Your task to perform on an android device: open a bookmark in the chrome app Image 0: 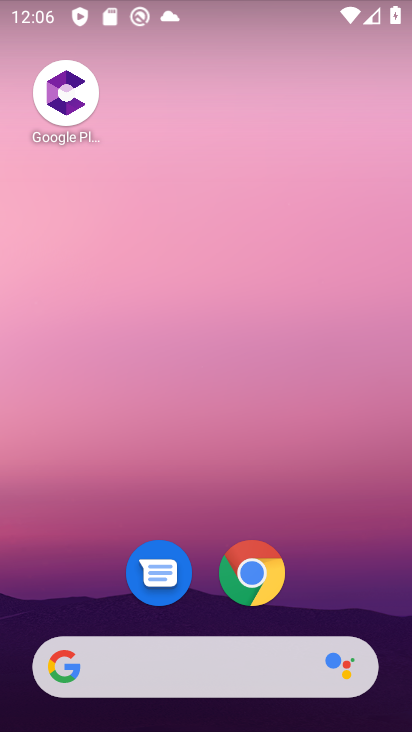
Step 0: click (259, 582)
Your task to perform on an android device: open a bookmark in the chrome app Image 1: 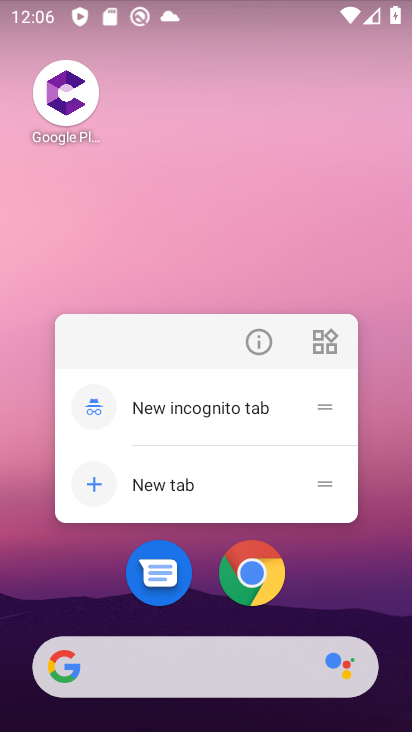
Step 1: click (257, 569)
Your task to perform on an android device: open a bookmark in the chrome app Image 2: 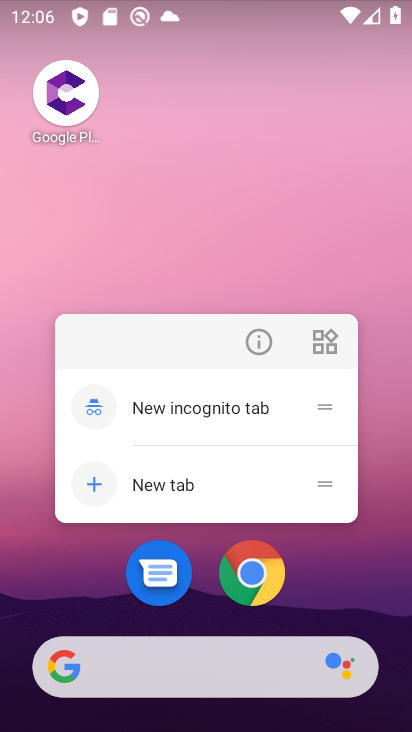
Step 2: click (286, 571)
Your task to perform on an android device: open a bookmark in the chrome app Image 3: 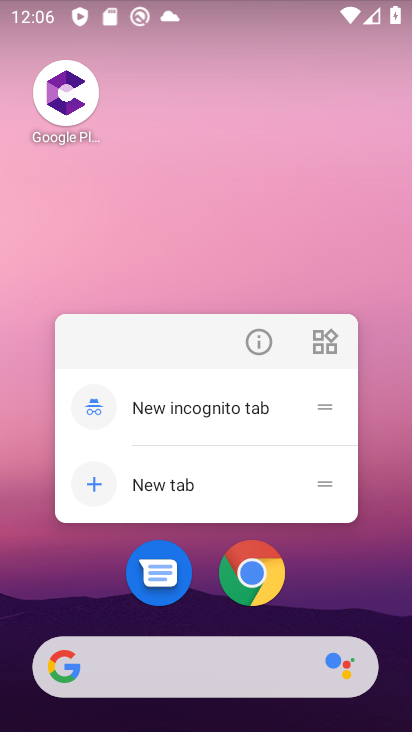
Step 3: click (274, 588)
Your task to perform on an android device: open a bookmark in the chrome app Image 4: 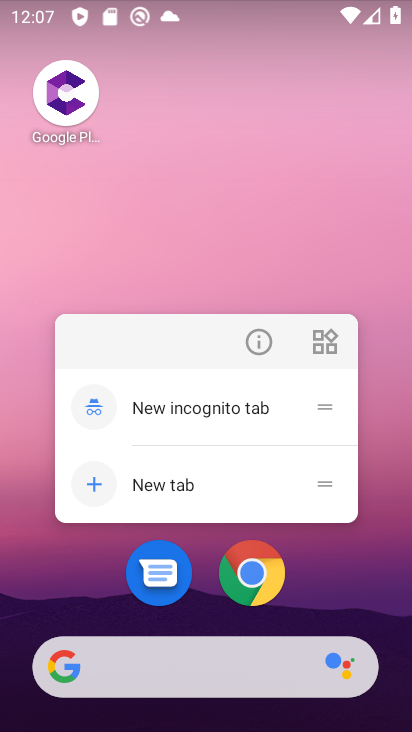
Step 4: click (264, 578)
Your task to perform on an android device: open a bookmark in the chrome app Image 5: 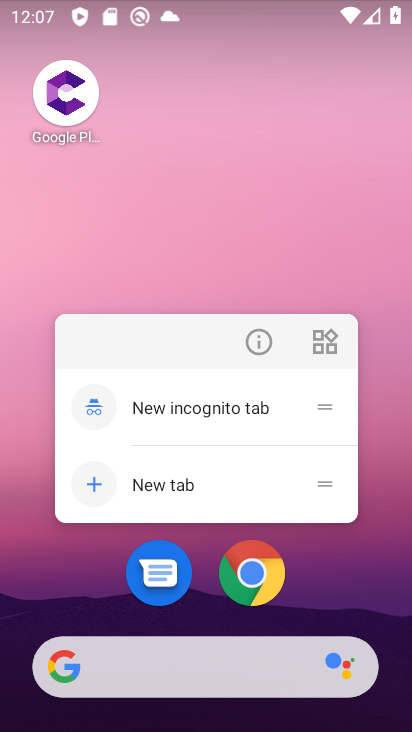
Step 5: click (257, 591)
Your task to perform on an android device: open a bookmark in the chrome app Image 6: 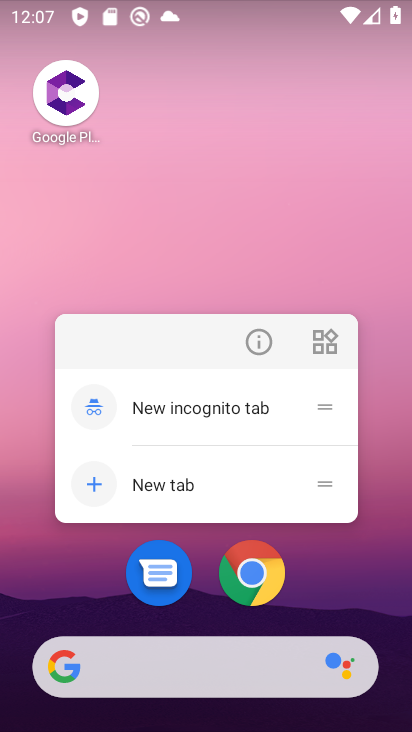
Step 6: click (260, 586)
Your task to perform on an android device: open a bookmark in the chrome app Image 7: 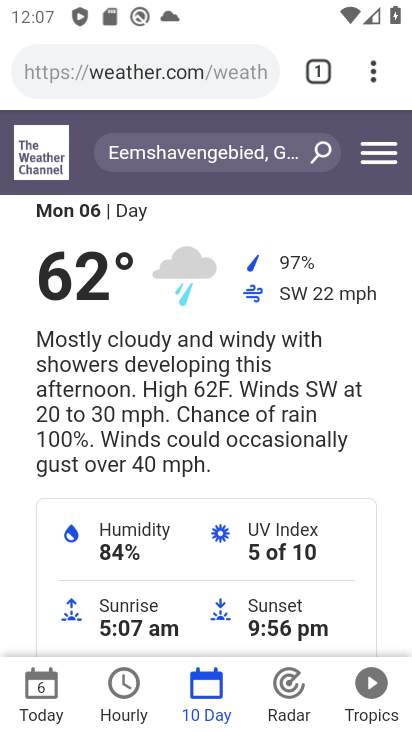
Step 7: task complete